Your task to perform on an android device: move an email to a new category in the gmail app Image 0: 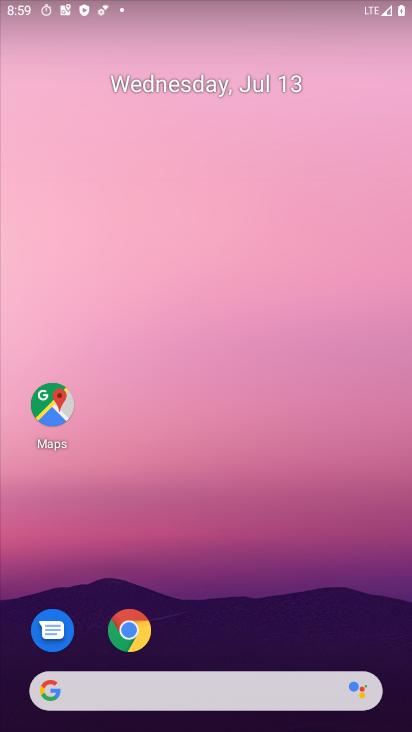
Step 0: drag from (312, 607) to (330, 71)
Your task to perform on an android device: move an email to a new category in the gmail app Image 1: 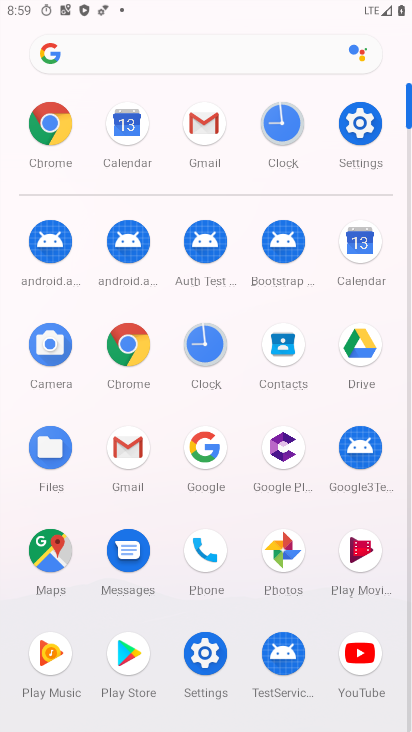
Step 1: click (125, 460)
Your task to perform on an android device: move an email to a new category in the gmail app Image 2: 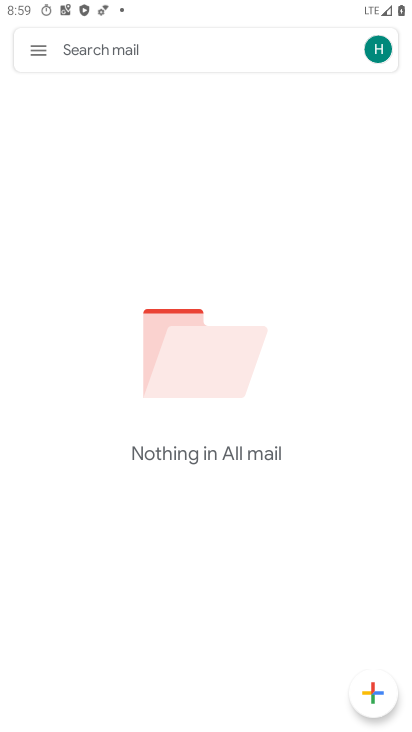
Step 2: click (36, 45)
Your task to perform on an android device: move an email to a new category in the gmail app Image 3: 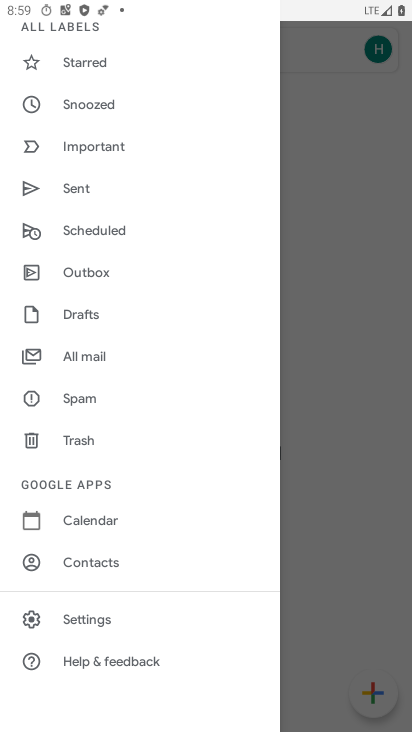
Step 3: drag from (208, 175) to (207, 369)
Your task to perform on an android device: move an email to a new category in the gmail app Image 4: 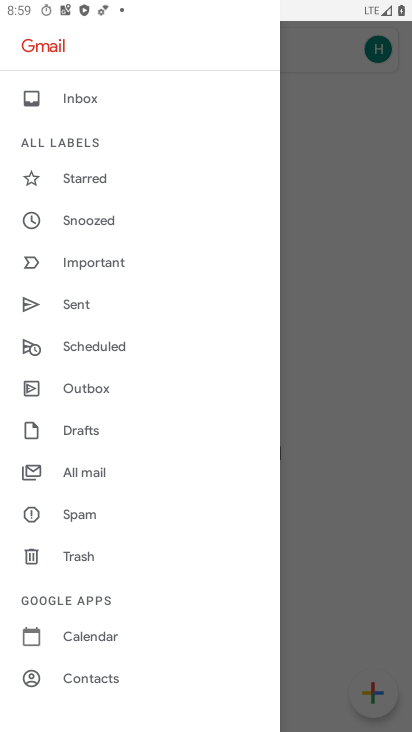
Step 4: click (90, 96)
Your task to perform on an android device: move an email to a new category in the gmail app Image 5: 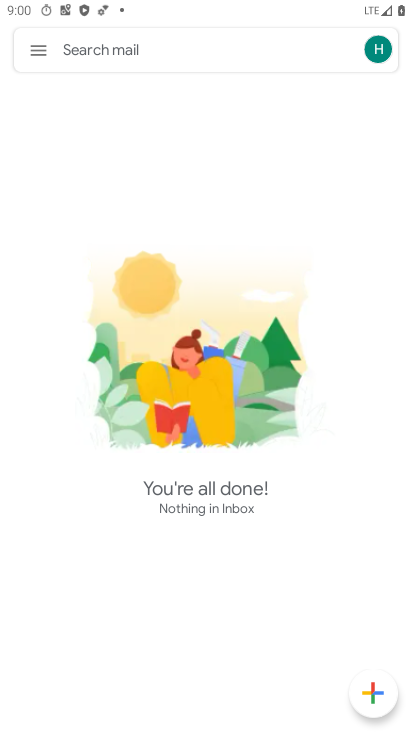
Step 5: task complete